Your task to perform on an android device: Go to ESPN.com Image 0: 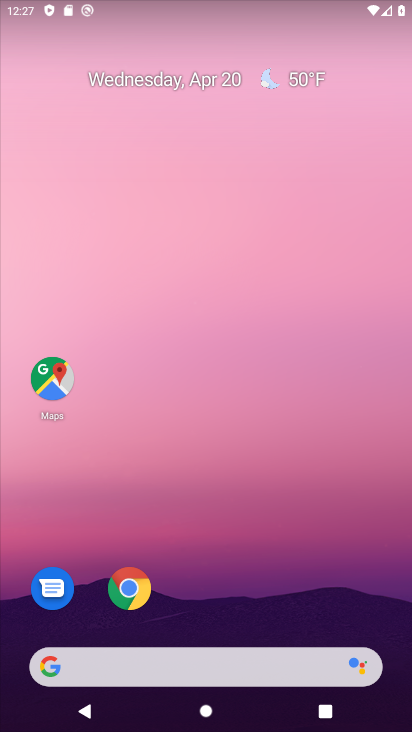
Step 0: click (128, 583)
Your task to perform on an android device: Go to ESPN.com Image 1: 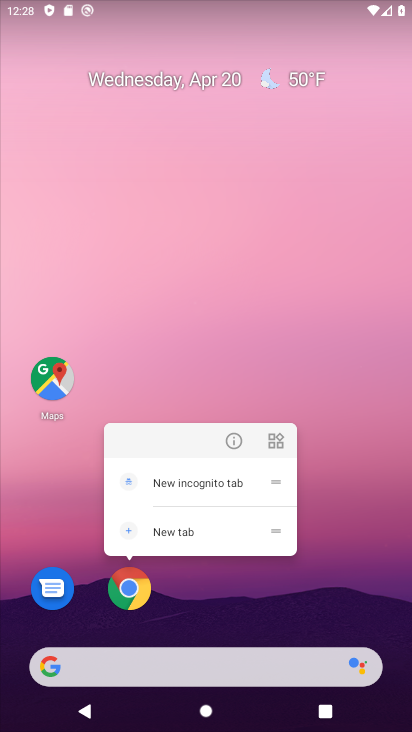
Step 1: click (177, 598)
Your task to perform on an android device: Go to ESPN.com Image 2: 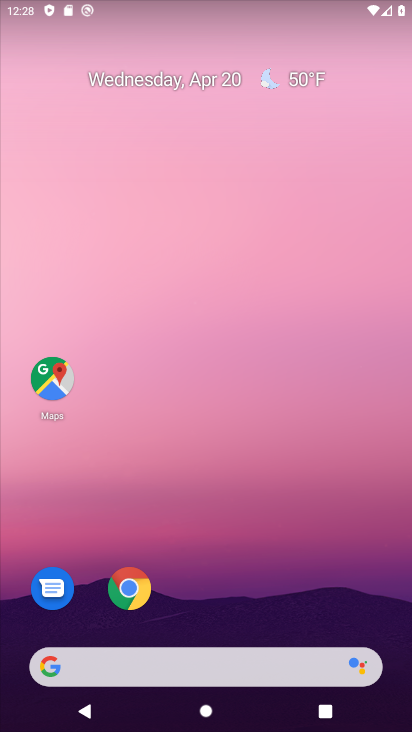
Step 2: click (126, 587)
Your task to perform on an android device: Go to ESPN.com Image 3: 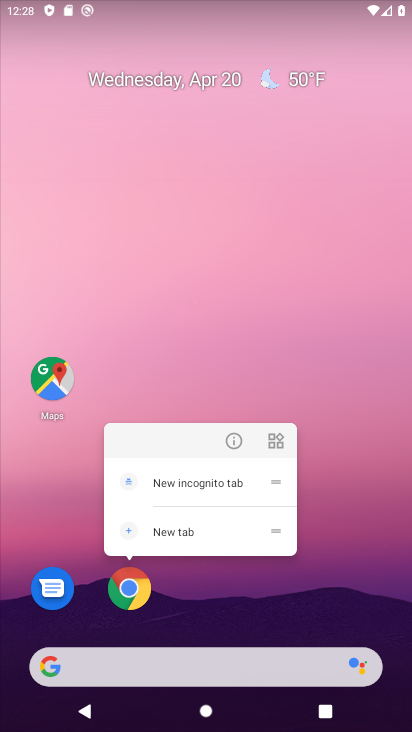
Step 3: click (128, 585)
Your task to perform on an android device: Go to ESPN.com Image 4: 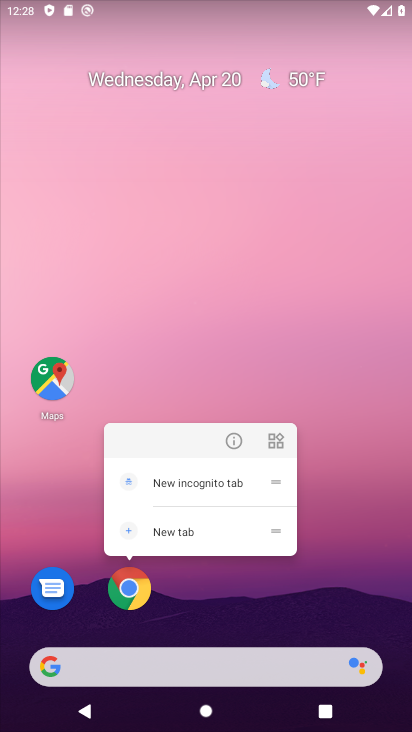
Step 4: click (173, 593)
Your task to perform on an android device: Go to ESPN.com Image 5: 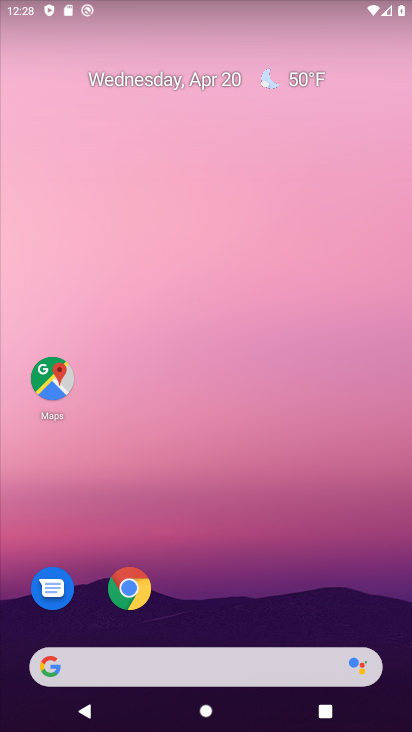
Step 5: click (292, 612)
Your task to perform on an android device: Go to ESPN.com Image 6: 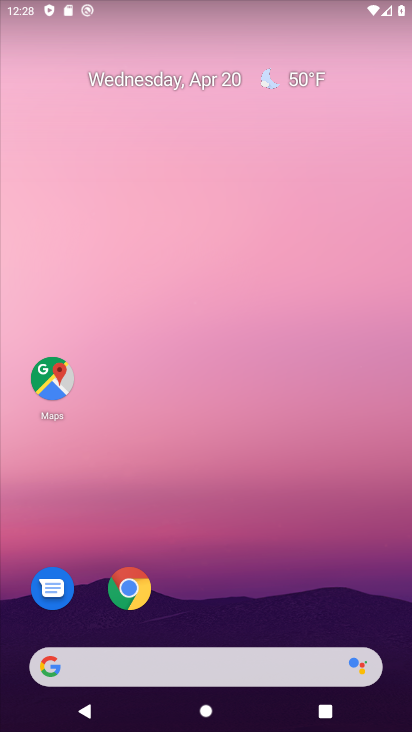
Step 6: click (128, 585)
Your task to perform on an android device: Go to ESPN.com Image 7: 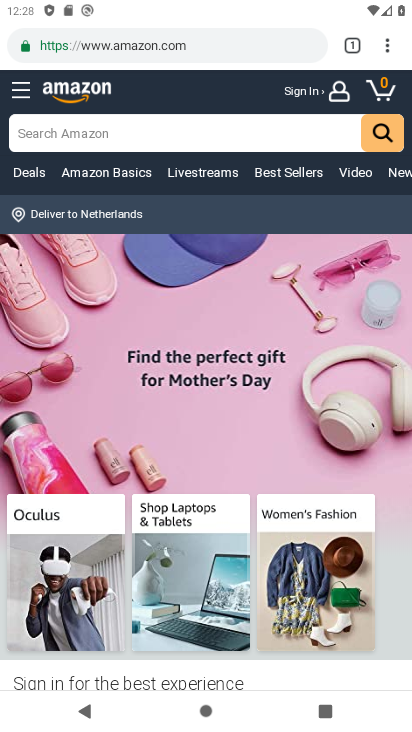
Step 7: click (349, 38)
Your task to perform on an android device: Go to ESPN.com Image 8: 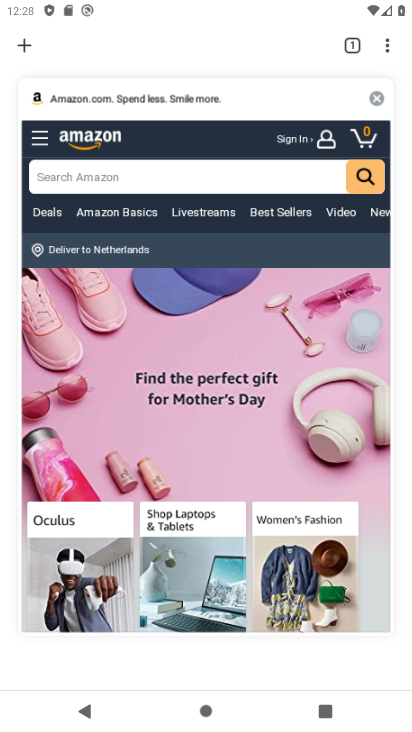
Step 8: click (37, 43)
Your task to perform on an android device: Go to ESPN.com Image 9: 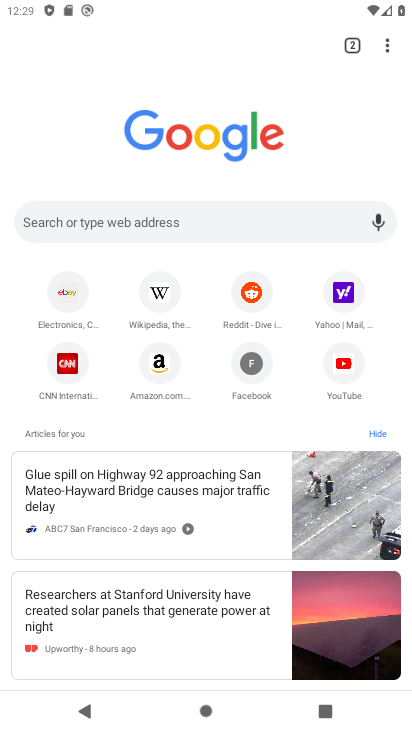
Step 9: click (103, 215)
Your task to perform on an android device: Go to ESPN.com Image 10: 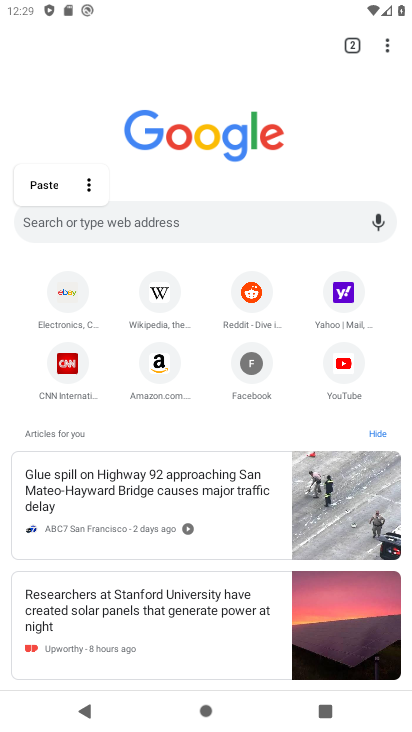
Step 10: click (111, 216)
Your task to perform on an android device: Go to ESPN.com Image 11: 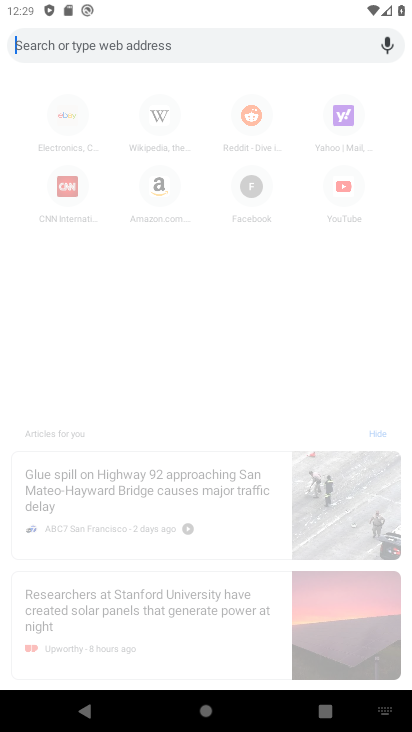
Step 11: type "espn"
Your task to perform on an android device: Go to ESPN.com Image 12: 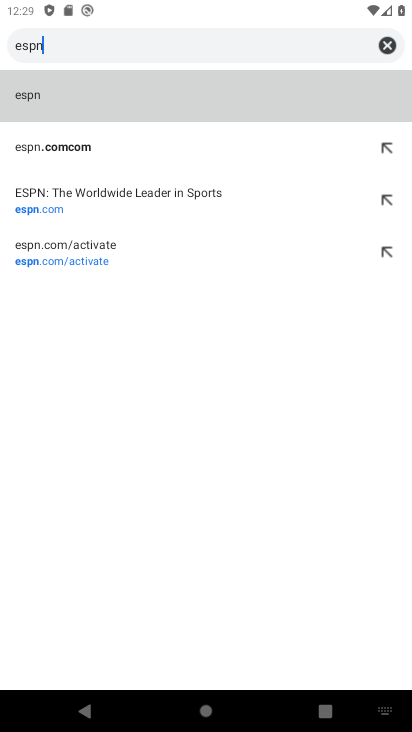
Step 12: click (86, 196)
Your task to perform on an android device: Go to ESPN.com Image 13: 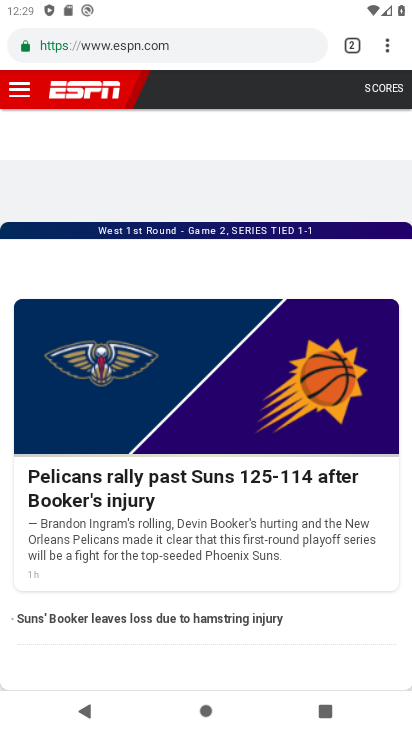
Step 13: task complete